Your task to perform on an android device: toggle airplane mode Image 0: 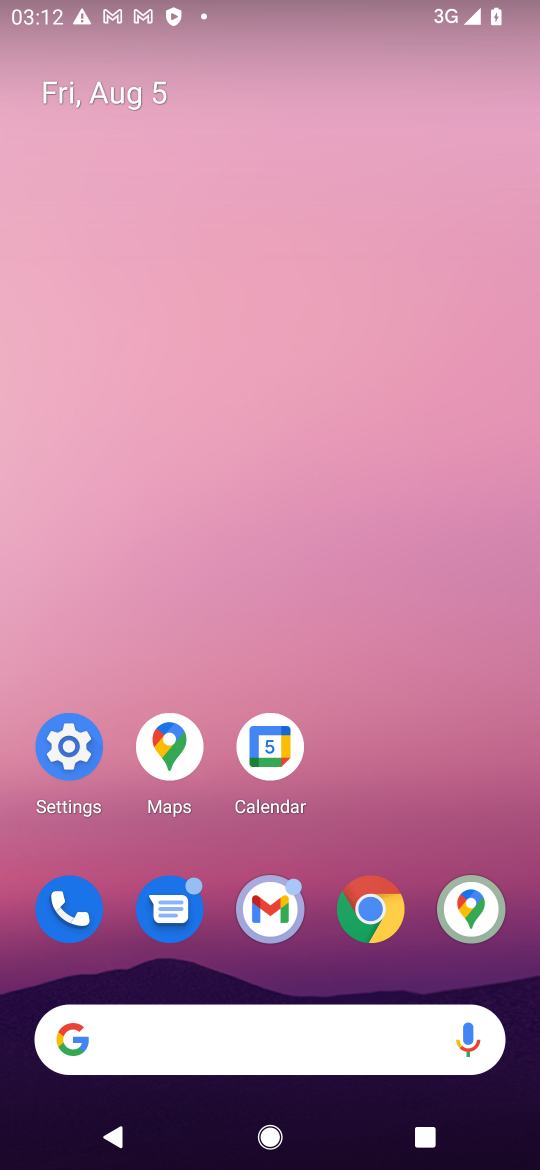
Step 0: click (73, 747)
Your task to perform on an android device: toggle airplane mode Image 1: 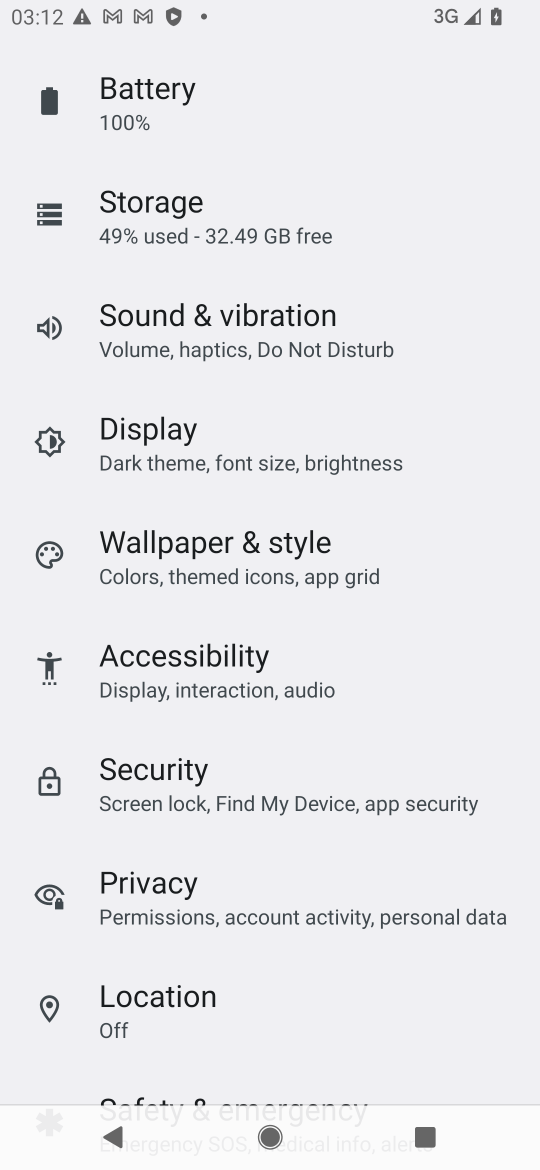
Step 1: drag from (376, 209) to (337, 835)
Your task to perform on an android device: toggle airplane mode Image 2: 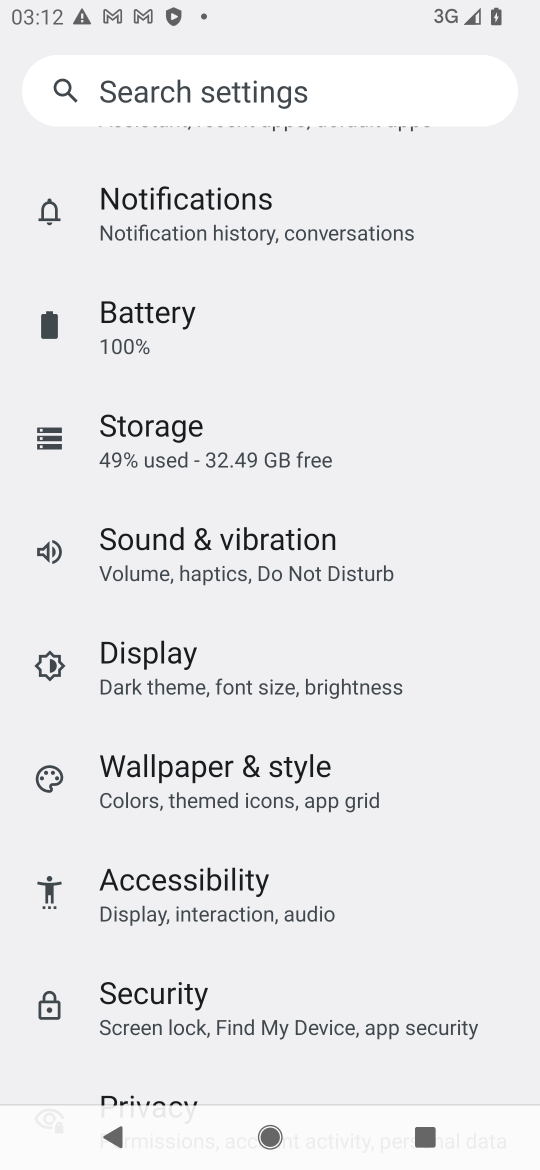
Step 2: drag from (286, 322) to (263, 1151)
Your task to perform on an android device: toggle airplane mode Image 3: 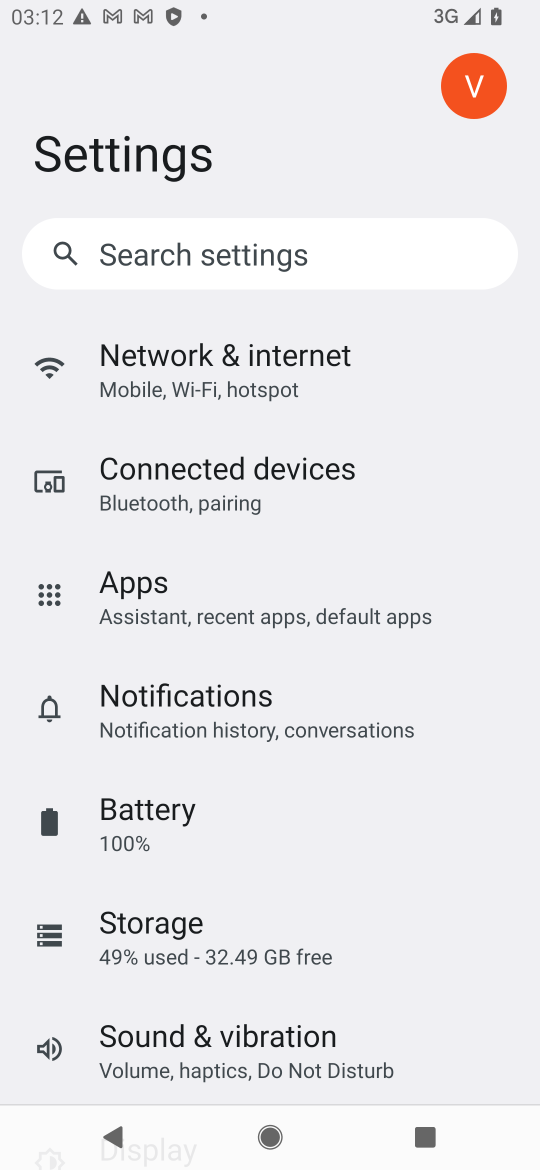
Step 3: click (210, 352)
Your task to perform on an android device: toggle airplane mode Image 4: 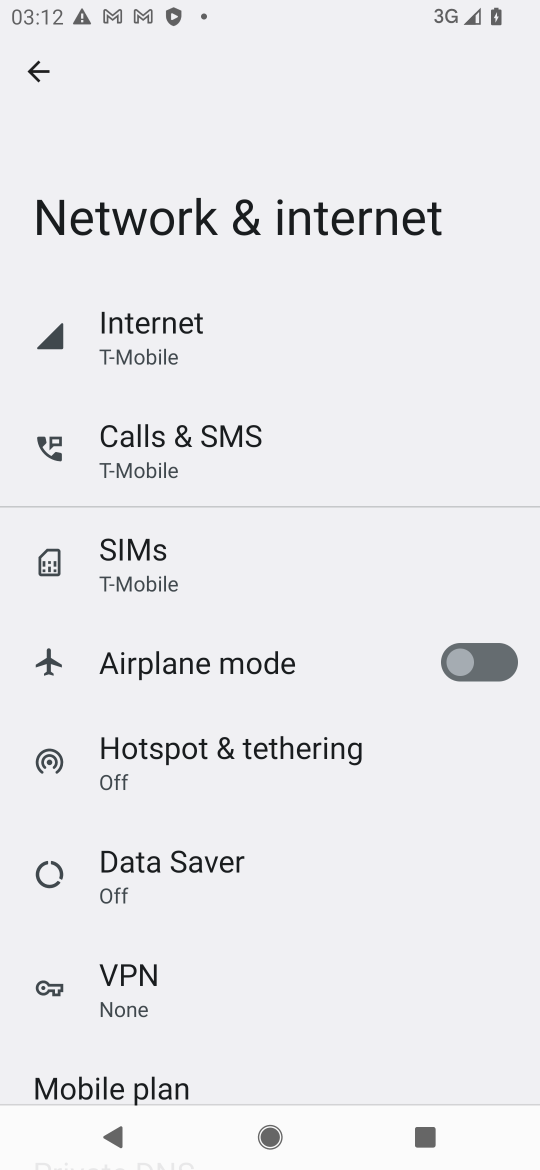
Step 4: click (447, 658)
Your task to perform on an android device: toggle airplane mode Image 5: 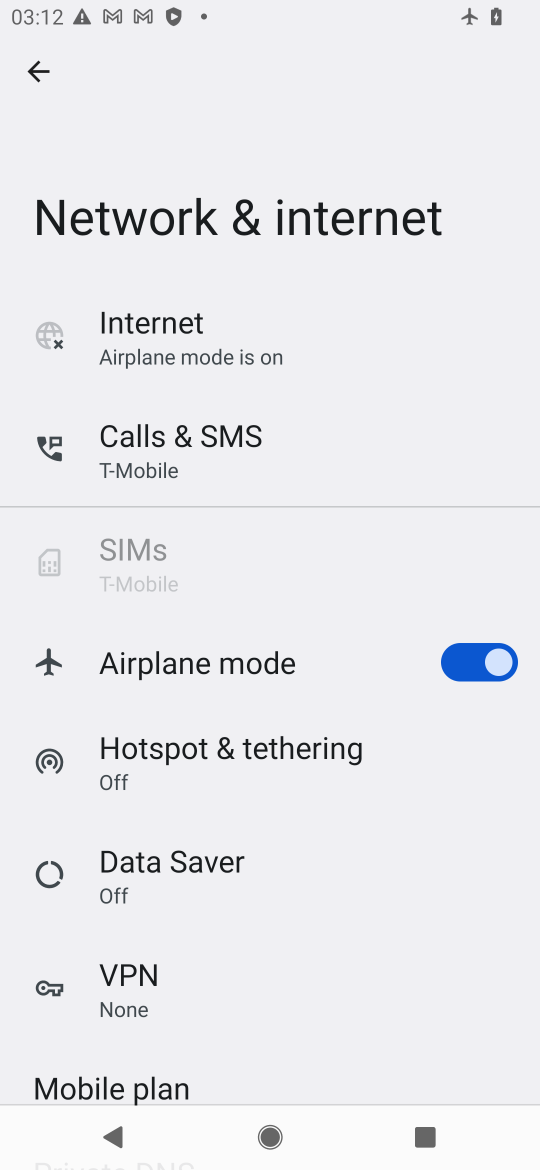
Step 5: task complete